Your task to perform on an android device: open app "DuckDuckGo Privacy Browser" Image 0: 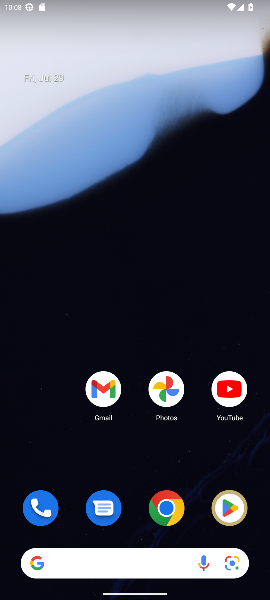
Step 0: drag from (123, 567) to (188, 81)
Your task to perform on an android device: open app "DuckDuckGo Privacy Browser" Image 1: 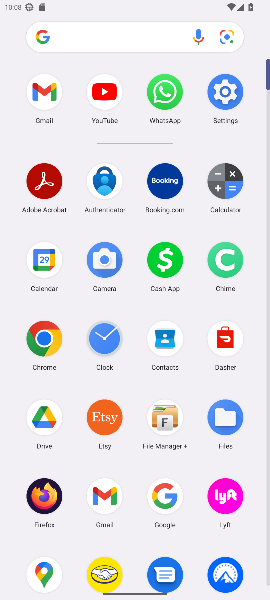
Step 1: drag from (126, 460) to (128, 130)
Your task to perform on an android device: open app "DuckDuckGo Privacy Browser" Image 2: 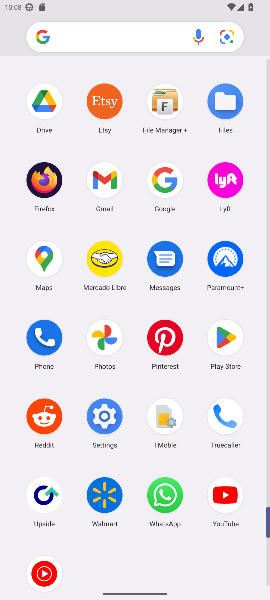
Step 2: click (225, 350)
Your task to perform on an android device: open app "DuckDuckGo Privacy Browser" Image 3: 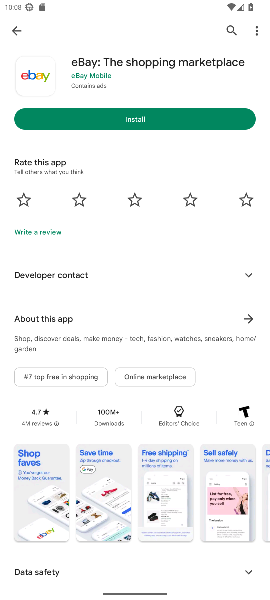
Step 3: click (231, 29)
Your task to perform on an android device: open app "DuckDuckGo Privacy Browser" Image 4: 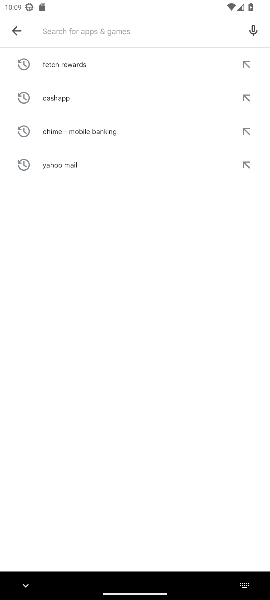
Step 4: type "duckduckgo"
Your task to perform on an android device: open app "DuckDuckGo Privacy Browser" Image 5: 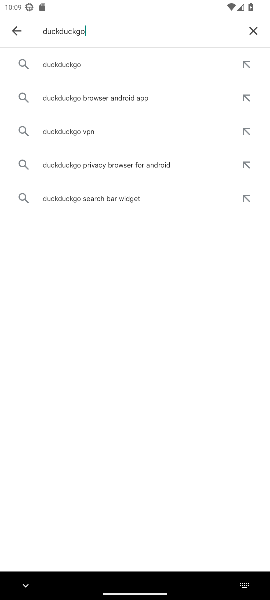
Step 5: type " privacy browser"
Your task to perform on an android device: open app "DuckDuckGo Privacy Browser" Image 6: 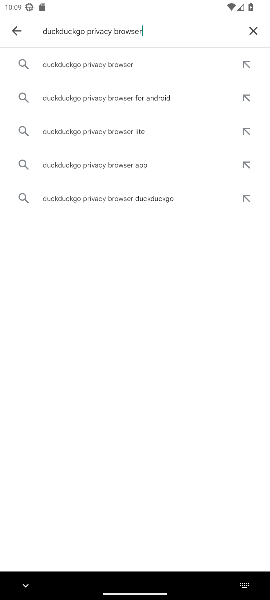
Step 6: click (118, 63)
Your task to perform on an android device: open app "DuckDuckGo Privacy Browser" Image 7: 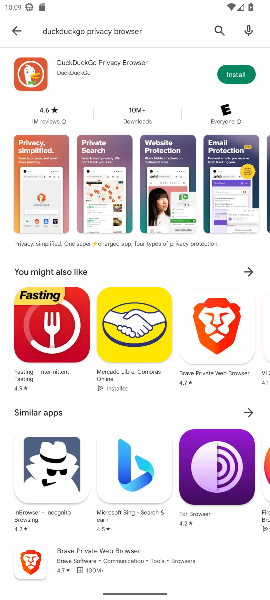
Step 7: task complete